Your task to perform on an android device: show emergency info Image 0: 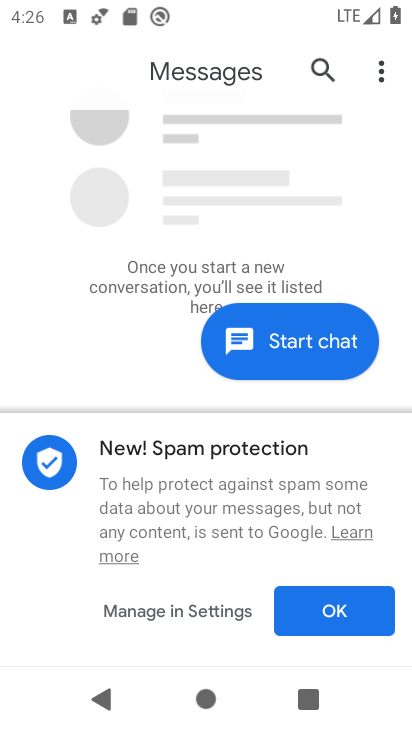
Step 0: press home button
Your task to perform on an android device: show emergency info Image 1: 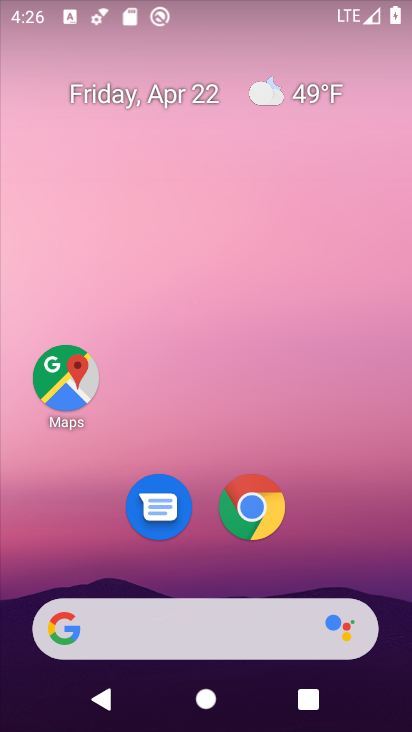
Step 1: drag from (375, 586) to (311, 58)
Your task to perform on an android device: show emergency info Image 2: 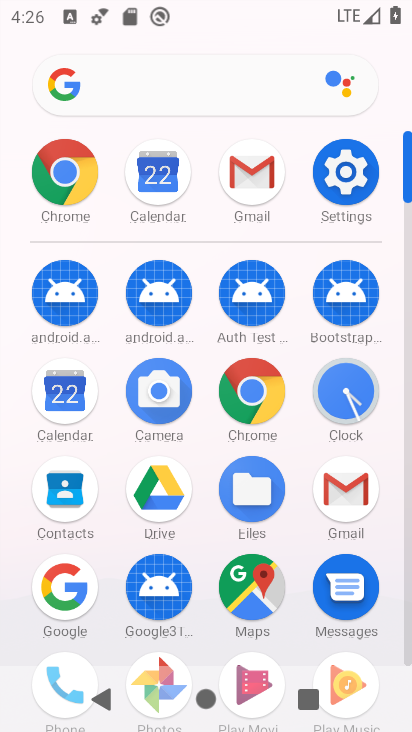
Step 2: click (406, 647)
Your task to perform on an android device: show emergency info Image 3: 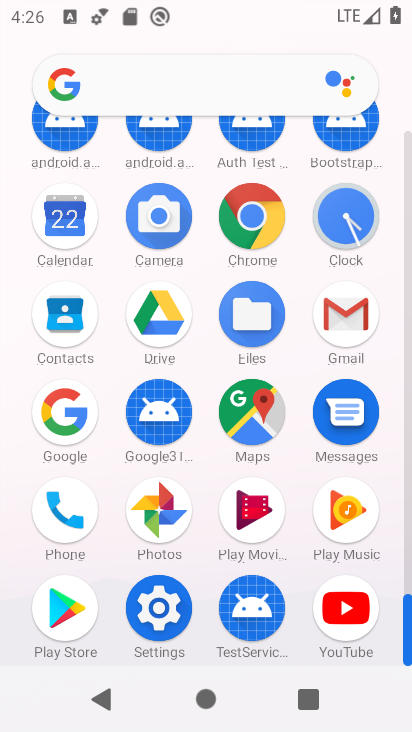
Step 3: click (157, 604)
Your task to perform on an android device: show emergency info Image 4: 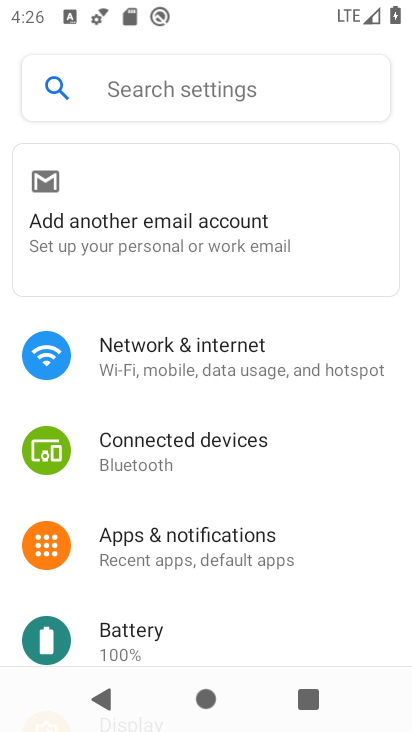
Step 4: drag from (332, 612) to (375, 141)
Your task to perform on an android device: show emergency info Image 5: 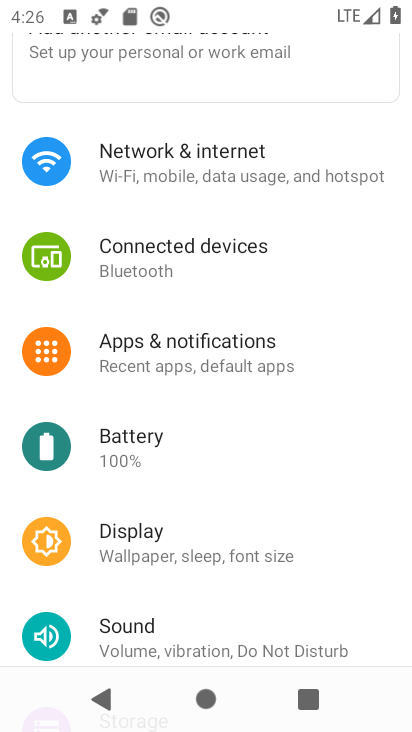
Step 5: drag from (320, 561) to (374, 111)
Your task to perform on an android device: show emergency info Image 6: 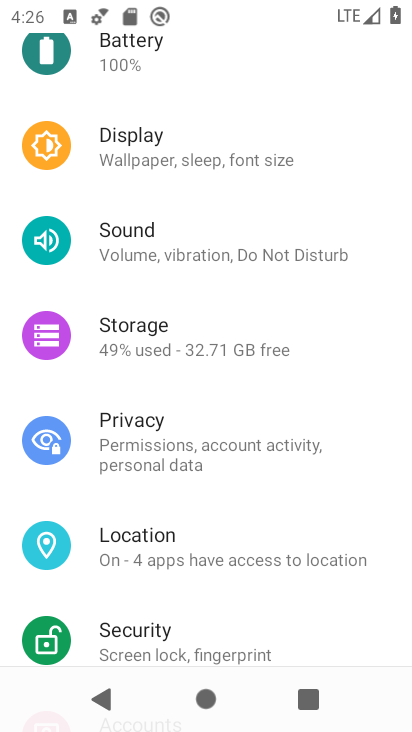
Step 6: drag from (383, 503) to (368, 66)
Your task to perform on an android device: show emergency info Image 7: 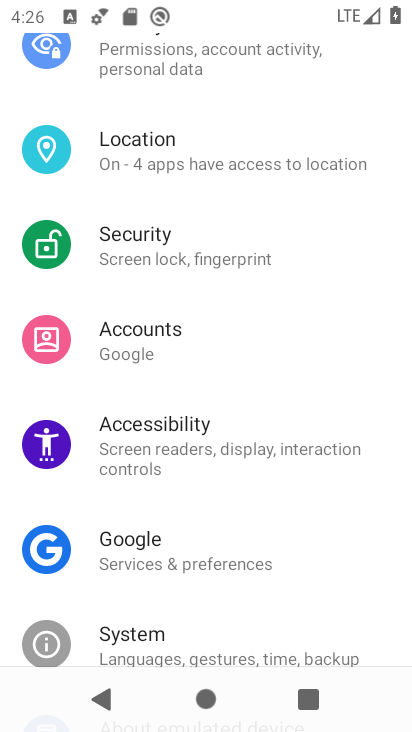
Step 7: drag from (348, 472) to (361, 134)
Your task to perform on an android device: show emergency info Image 8: 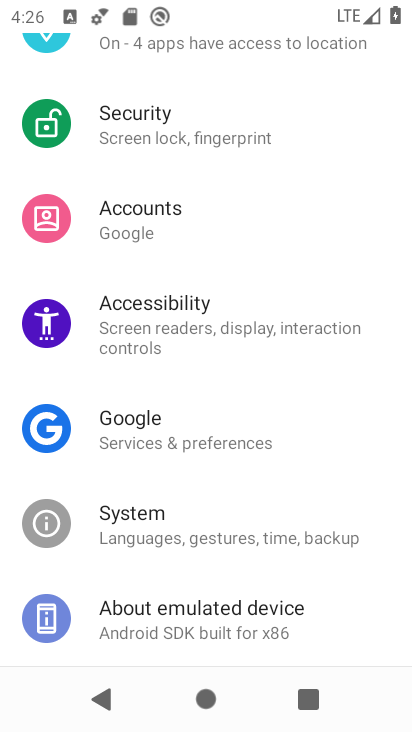
Step 8: drag from (319, 589) to (372, 199)
Your task to perform on an android device: show emergency info Image 9: 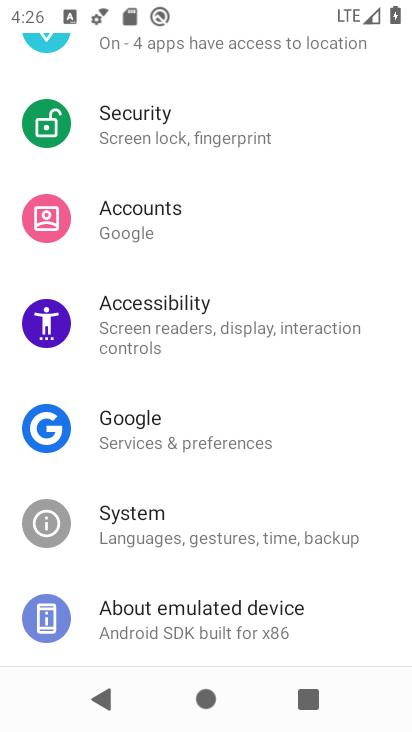
Step 9: click (145, 622)
Your task to perform on an android device: show emergency info Image 10: 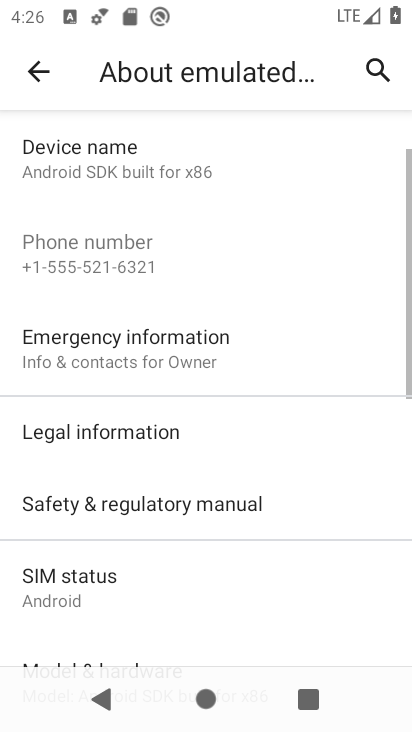
Step 10: click (85, 349)
Your task to perform on an android device: show emergency info Image 11: 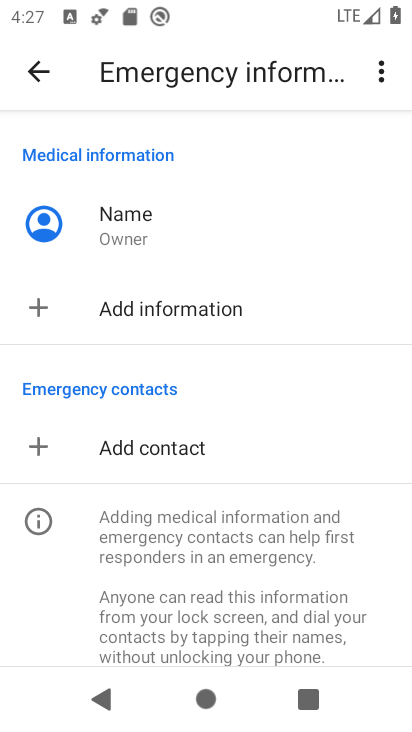
Step 11: task complete